Your task to perform on an android device: Show me recent news Image 0: 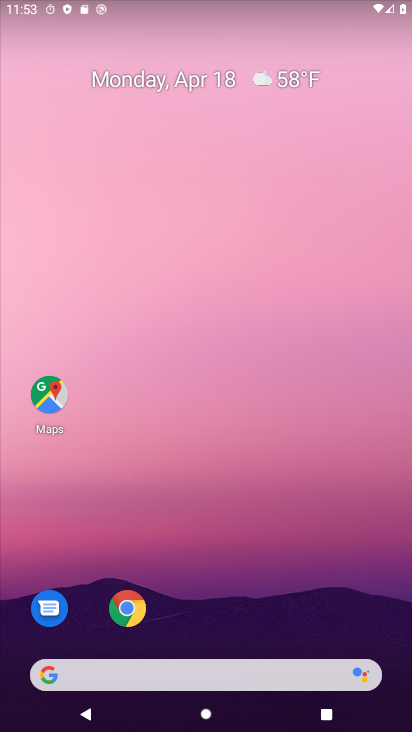
Step 0: drag from (243, 379) to (239, 134)
Your task to perform on an android device: Show me recent news Image 1: 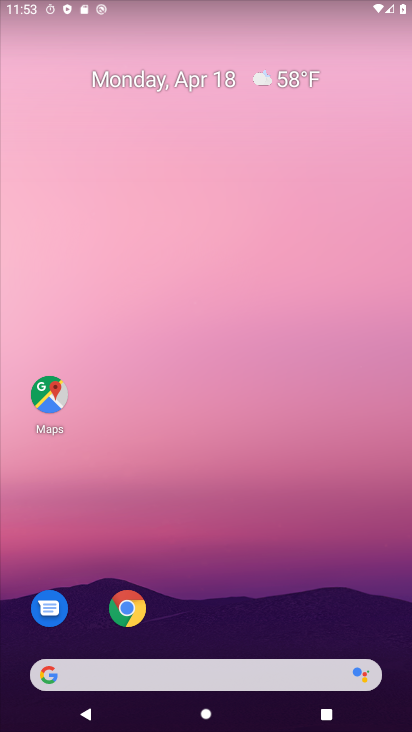
Step 1: drag from (246, 597) to (246, 147)
Your task to perform on an android device: Show me recent news Image 2: 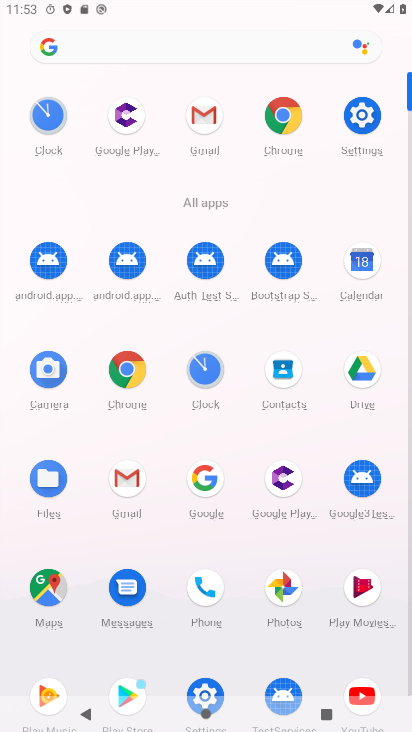
Step 2: click (120, 378)
Your task to perform on an android device: Show me recent news Image 3: 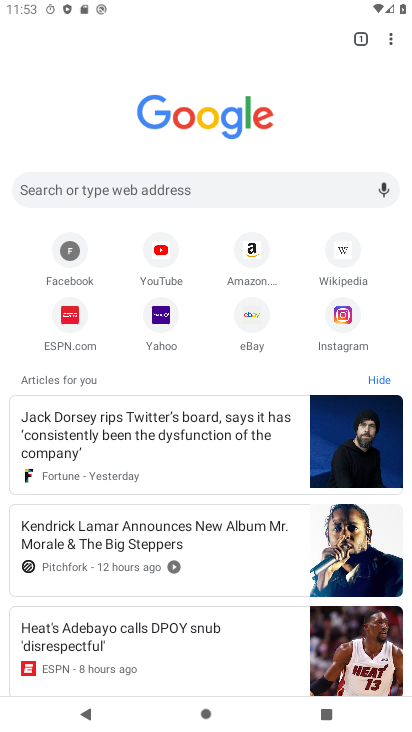
Step 3: click (196, 193)
Your task to perform on an android device: Show me recent news Image 4: 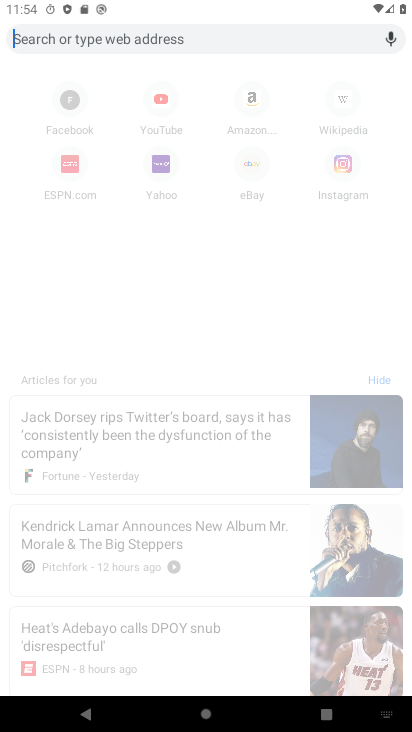
Step 4: type "news"
Your task to perform on an android device: Show me recent news Image 5: 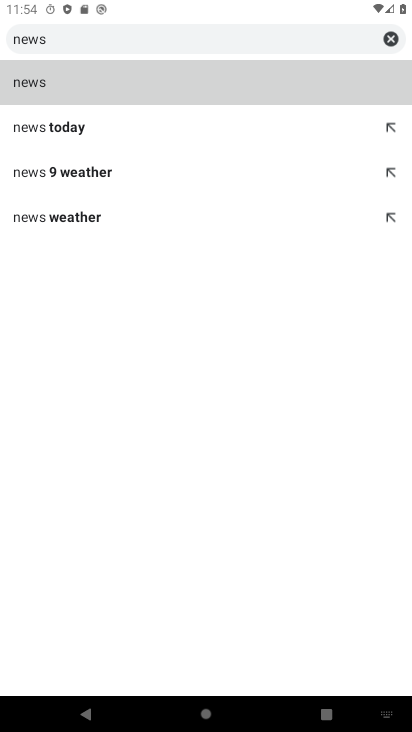
Step 5: click (157, 75)
Your task to perform on an android device: Show me recent news Image 6: 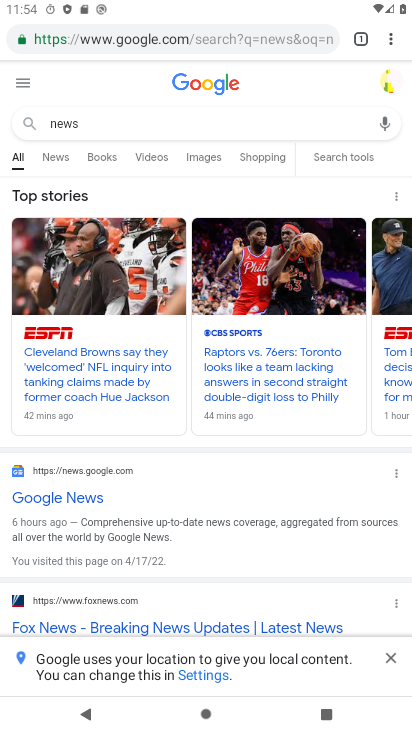
Step 6: click (49, 158)
Your task to perform on an android device: Show me recent news Image 7: 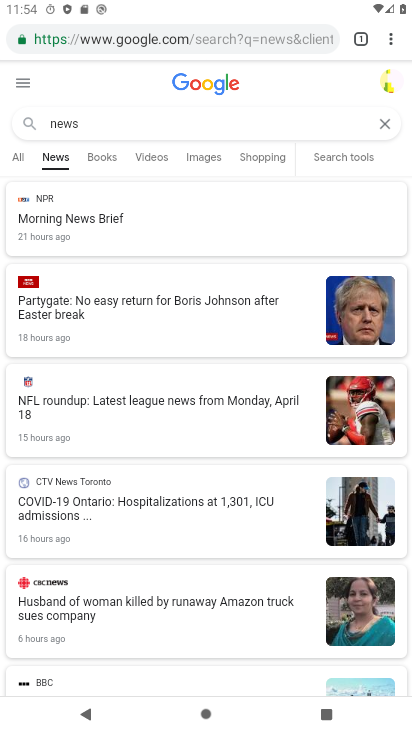
Step 7: task complete